Your task to perform on an android device: Go to eBay Image 0: 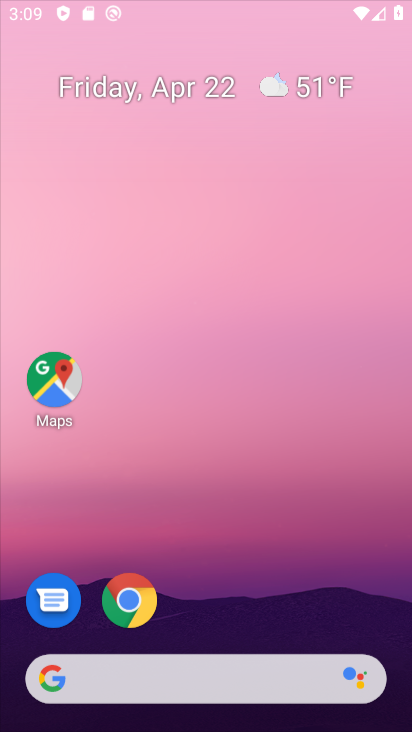
Step 0: drag from (280, 588) to (184, 190)
Your task to perform on an android device: Go to eBay Image 1: 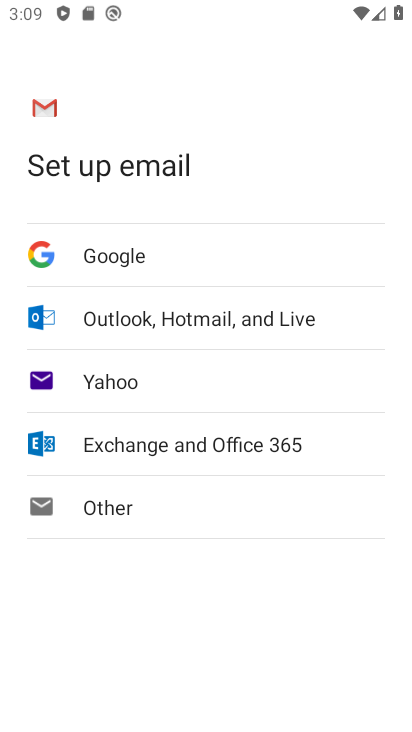
Step 1: drag from (285, 493) to (237, 280)
Your task to perform on an android device: Go to eBay Image 2: 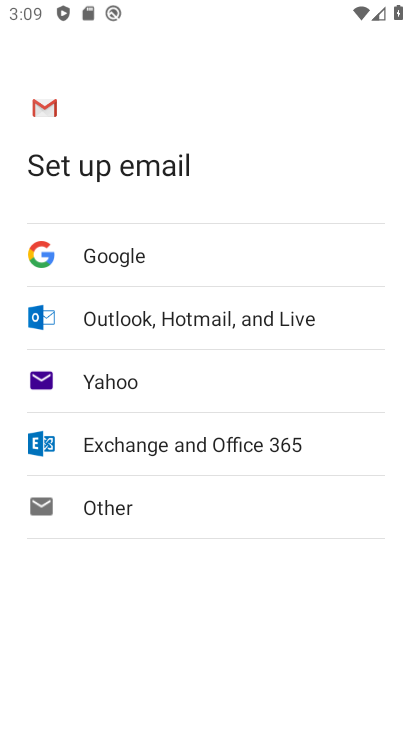
Step 2: press home button
Your task to perform on an android device: Go to eBay Image 3: 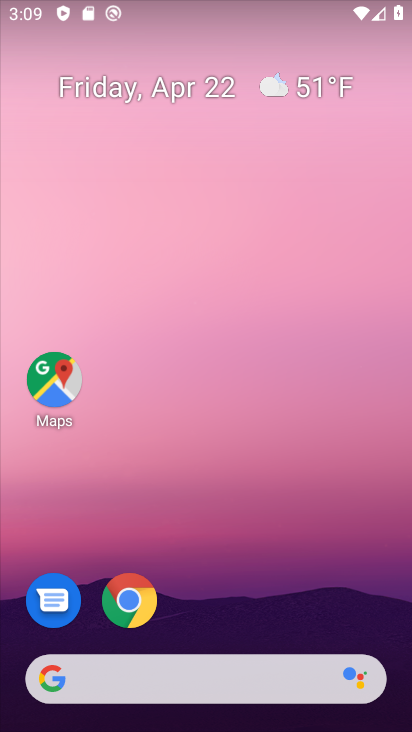
Step 3: drag from (245, 643) to (184, 239)
Your task to perform on an android device: Go to eBay Image 4: 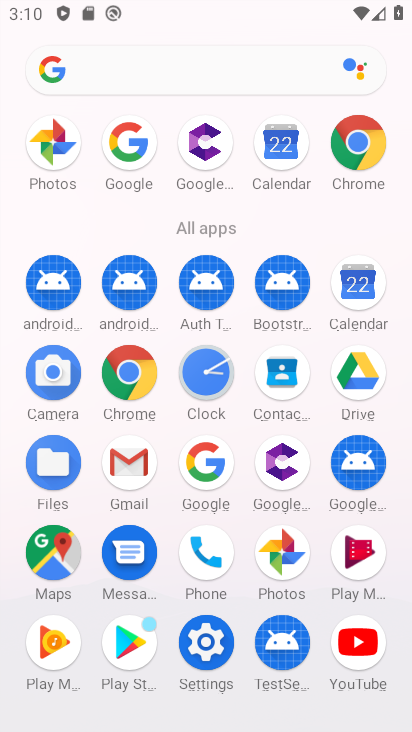
Step 4: click (356, 147)
Your task to perform on an android device: Go to eBay Image 5: 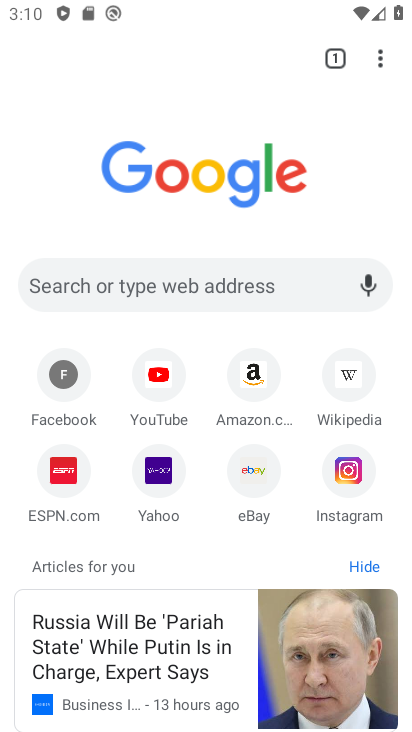
Step 5: click (357, 151)
Your task to perform on an android device: Go to eBay Image 6: 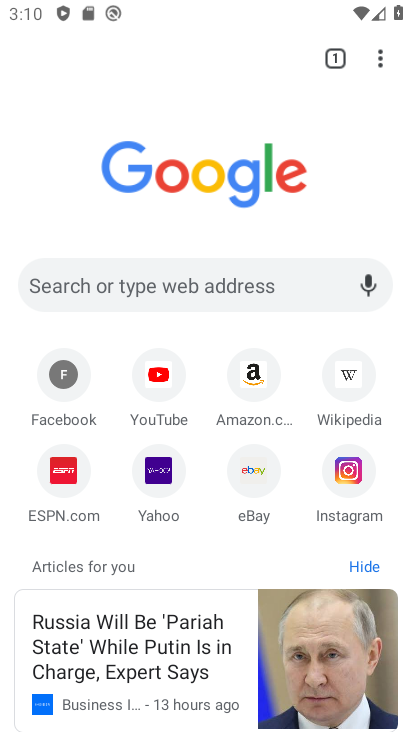
Step 6: click (357, 132)
Your task to perform on an android device: Go to eBay Image 7: 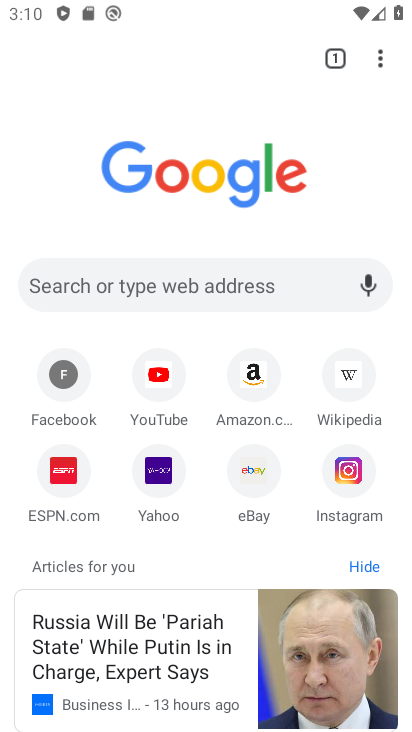
Step 7: click (251, 468)
Your task to perform on an android device: Go to eBay Image 8: 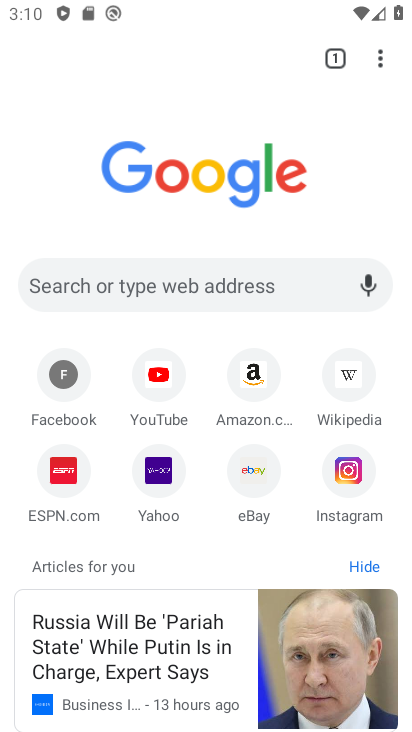
Step 8: click (251, 468)
Your task to perform on an android device: Go to eBay Image 9: 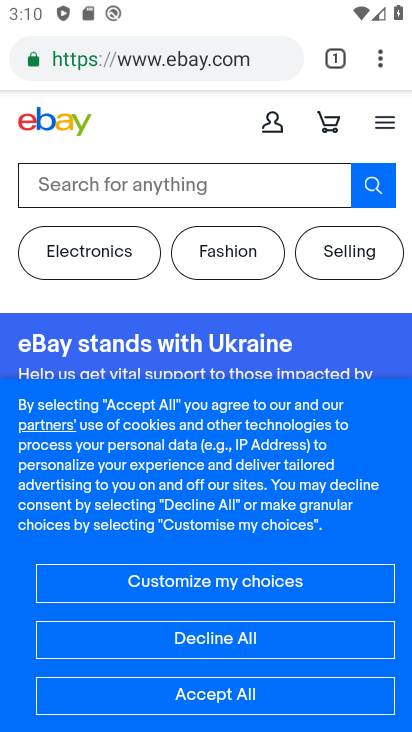
Step 9: task complete